Your task to perform on an android device: Go to Google maps Image 0: 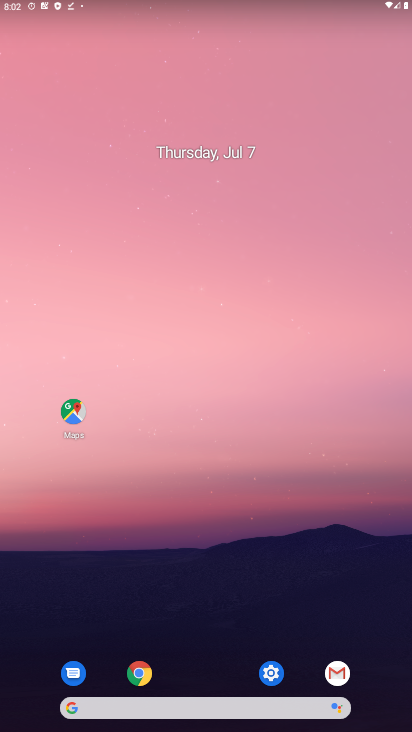
Step 0: click (77, 420)
Your task to perform on an android device: Go to Google maps Image 1: 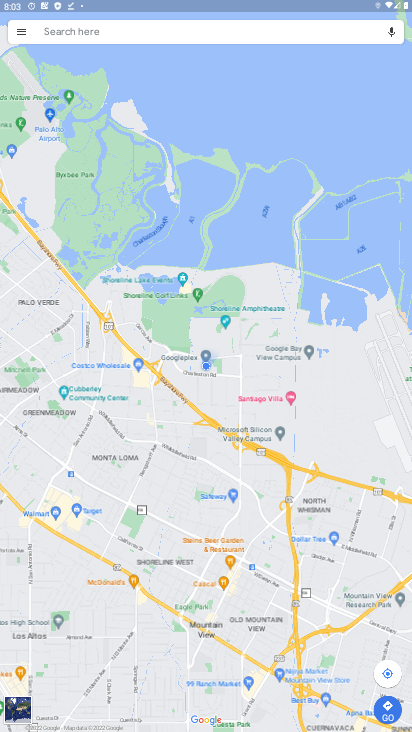
Step 1: task complete